Your task to perform on an android device: Show me the alarms in the clock app Image 0: 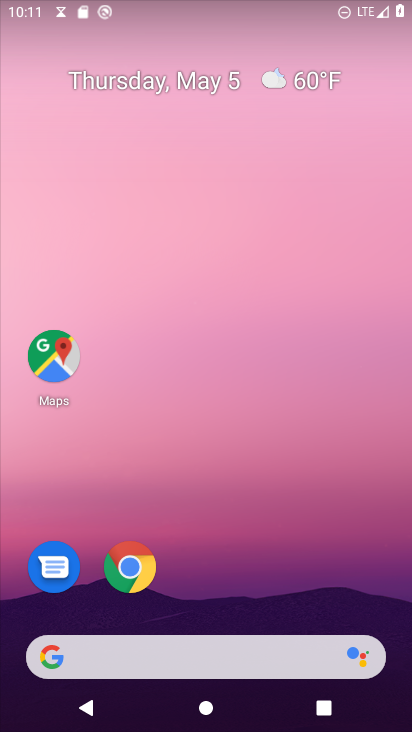
Step 0: drag from (207, 731) to (228, 226)
Your task to perform on an android device: Show me the alarms in the clock app Image 1: 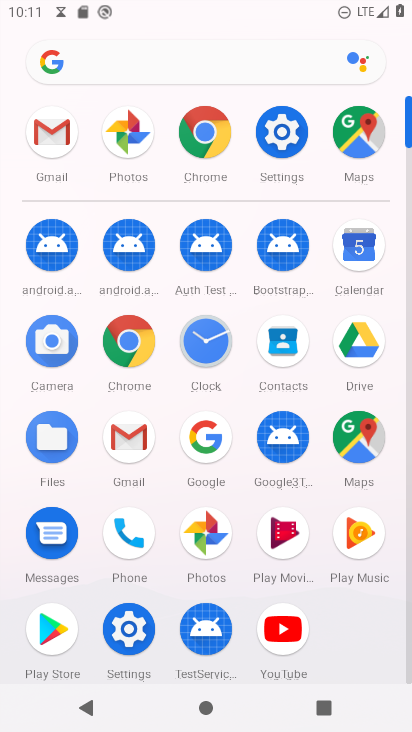
Step 1: click (206, 347)
Your task to perform on an android device: Show me the alarms in the clock app Image 2: 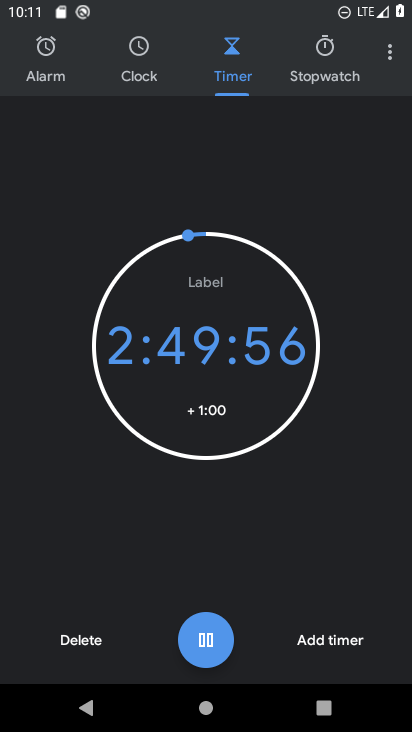
Step 2: click (46, 65)
Your task to perform on an android device: Show me the alarms in the clock app Image 3: 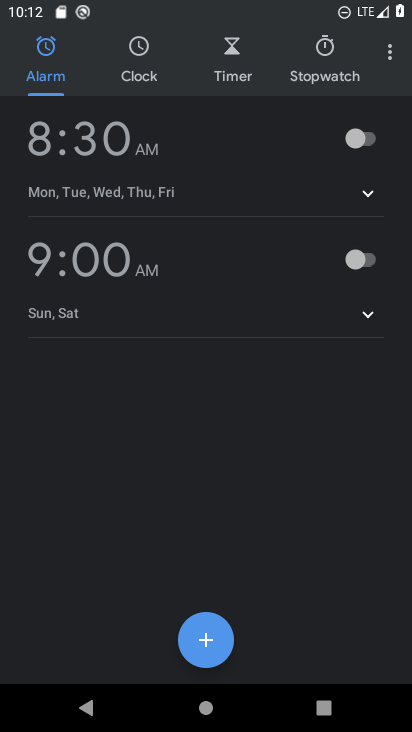
Step 3: task complete